Your task to perform on an android device: open app "Google Photos" (install if not already installed) Image 0: 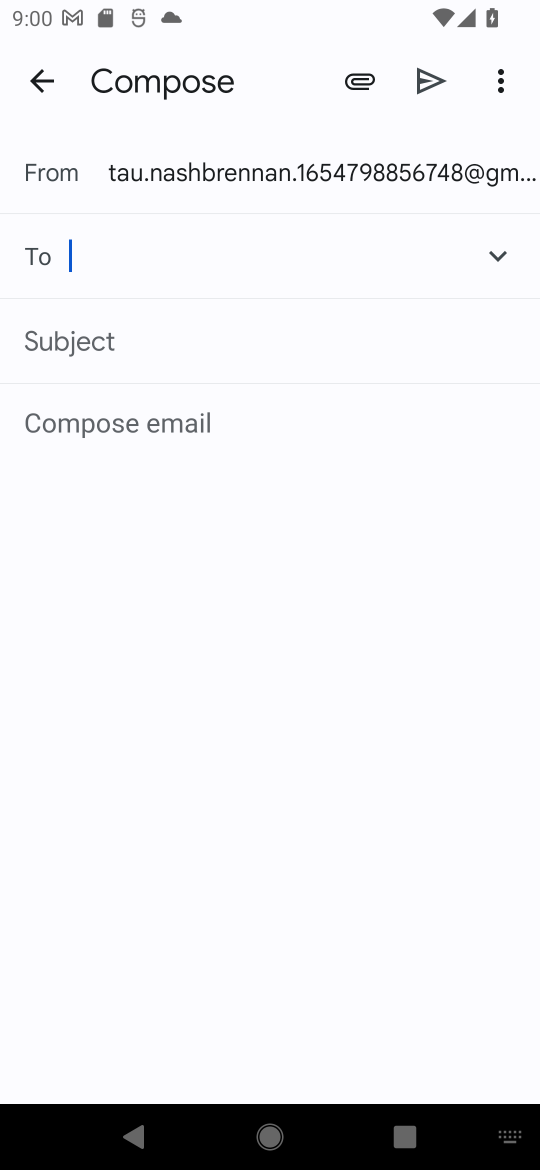
Step 0: press home button
Your task to perform on an android device: open app "Google Photos" (install if not already installed) Image 1: 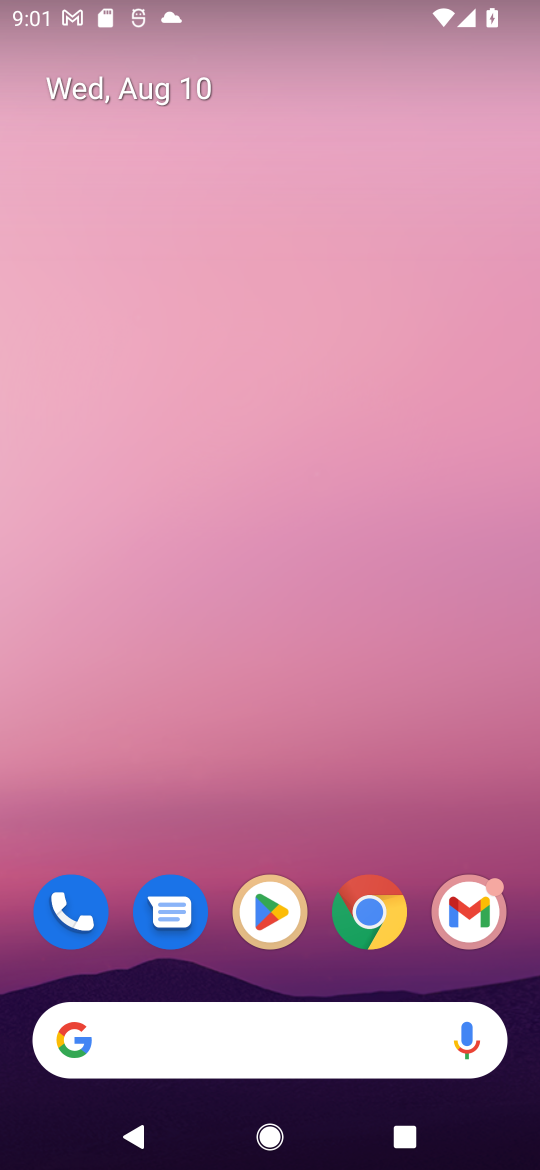
Step 1: drag from (536, 967) to (267, 0)
Your task to perform on an android device: open app "Google Photos" (install if not already installed) Image 2: 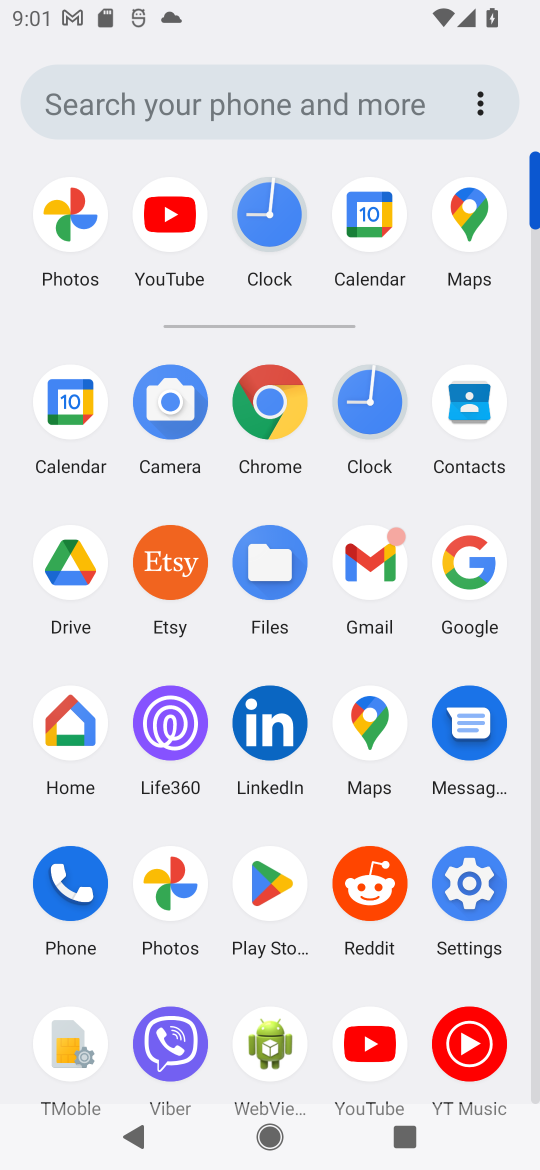
Step 2: click (277, 893)
Your task to perform on an android device: open app "Google Photos" (install if not already installed) Image 3: 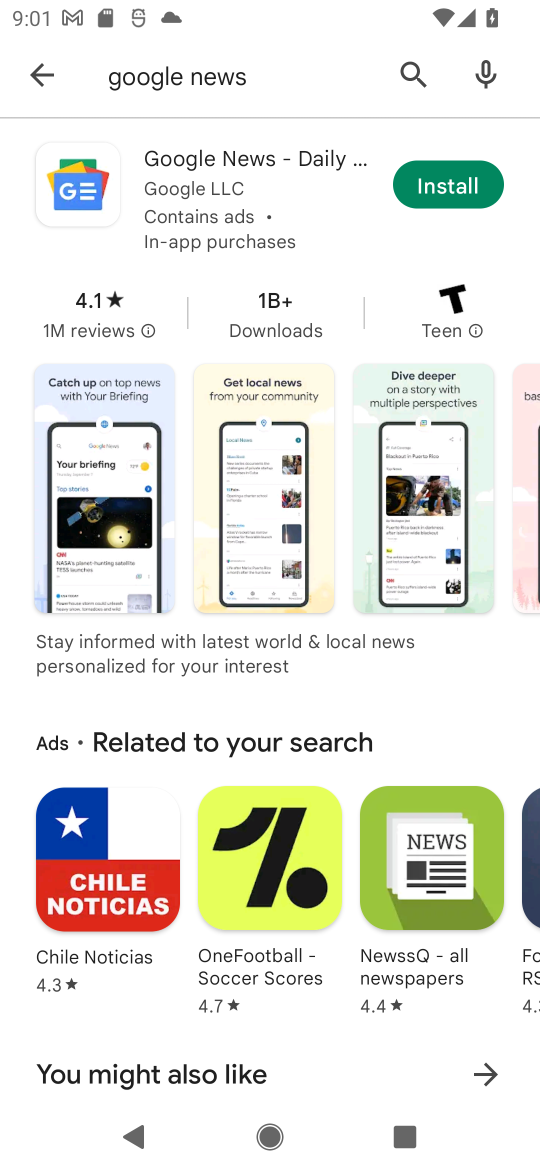
Step 3: press back button
Your task to perform on an android device: open app "Google Photos" (install if not already installed) Image 4: 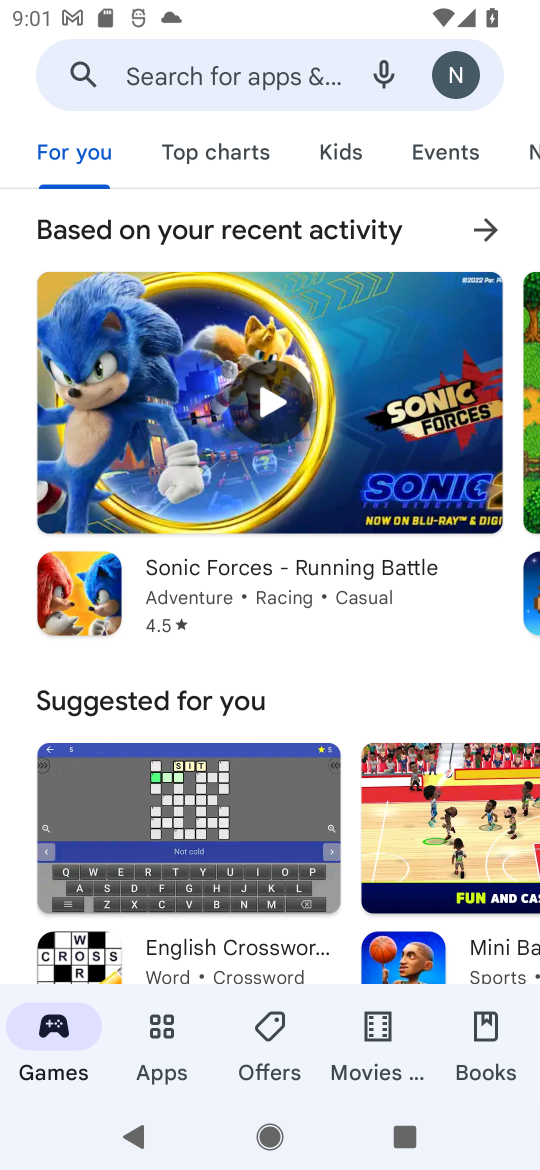
Step 4: click (243, 73)
Your task to perform on an android device: open app "Google Photos" (install if not already installed) Image 5: 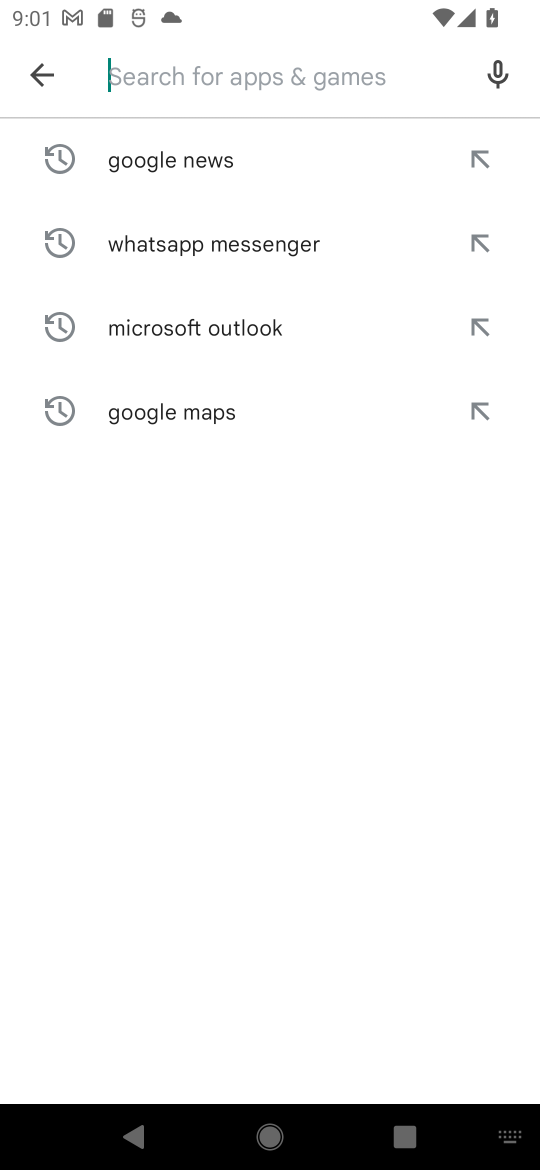
Step 5: type "Google Photos"
Your task to perform on an android device: open app "Google Photos" (install if not already installed) Image 6: 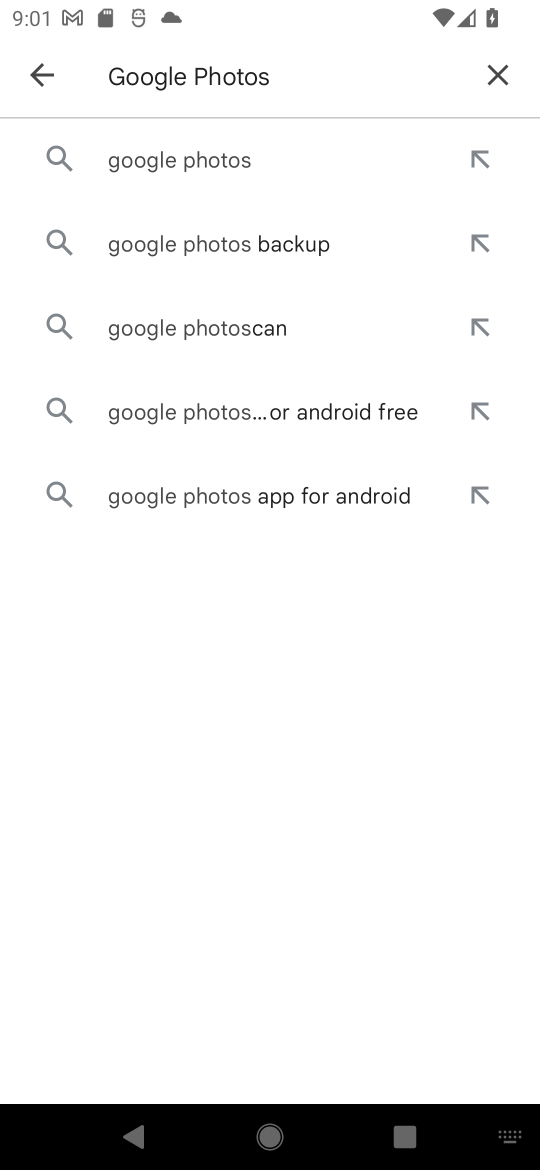
Step 6: click (199, 162)
Your task to perform on an android device: open app "Google Photos" (install if not already installed) Image 7: 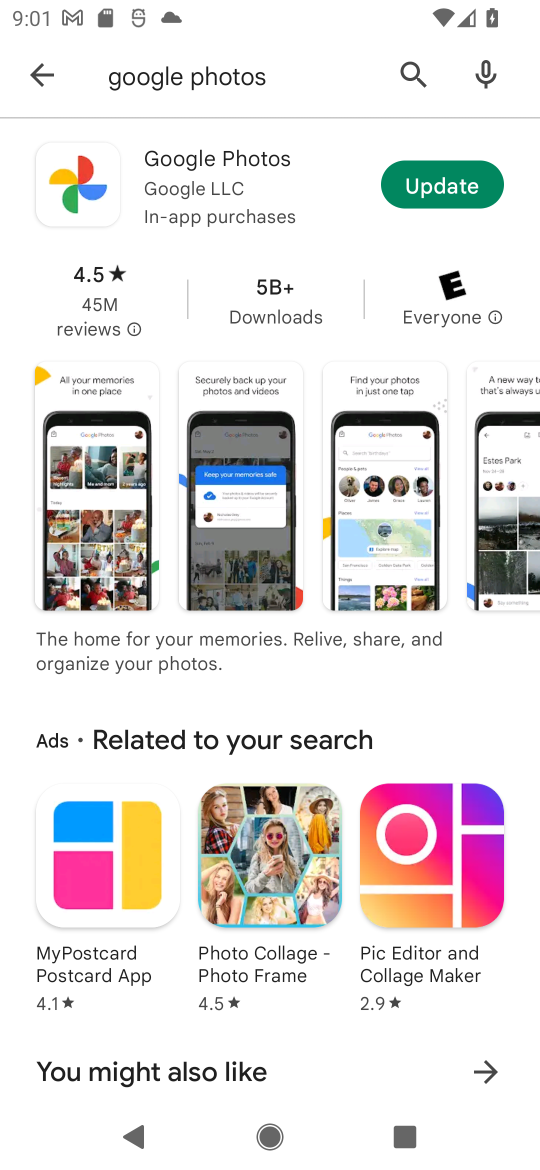
Step 7: click (473, 178)
Your task to perform on an android device: open app "Google Photos" (install if not already installed) Image 8: 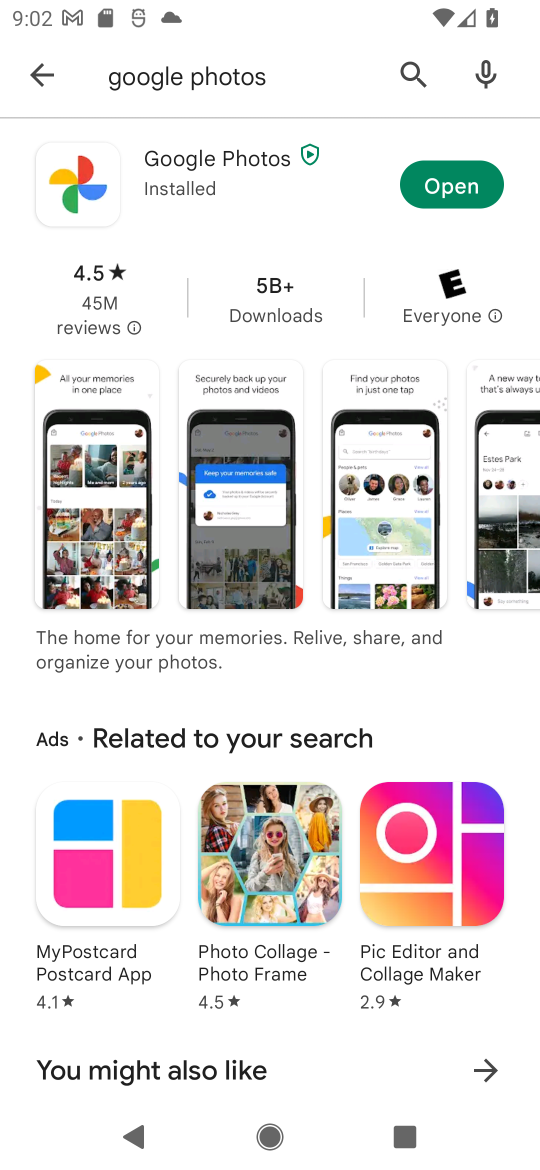
Step 8: task complete